Your task to perform on an android device: move a message to another label in the gmail app Image 0: 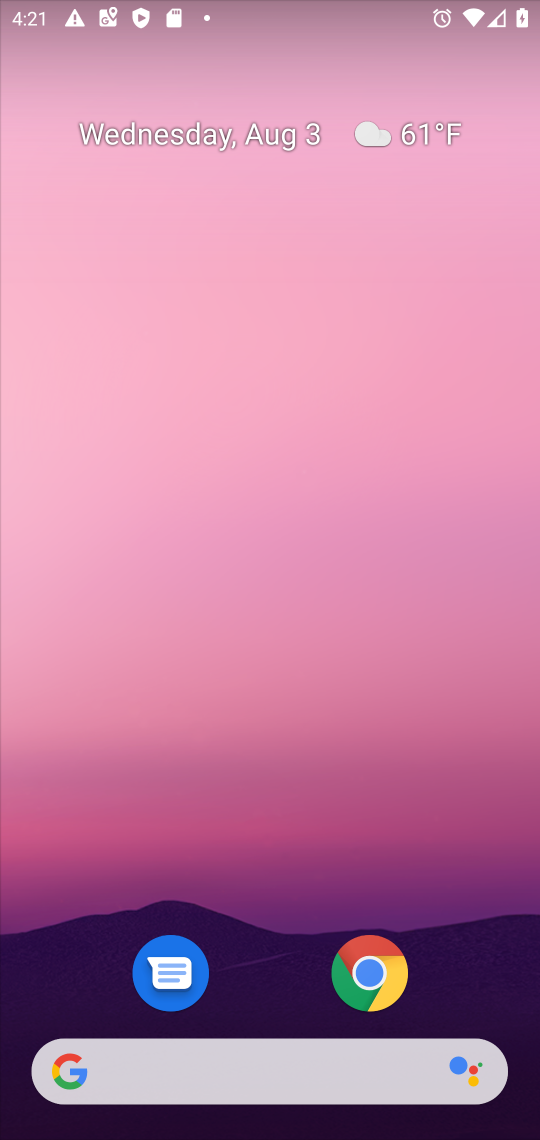
Step 0: drag from (352, 773) to (281, 61)
Your task to perform on an android device: move a message to another label in the gmail app Image 1: 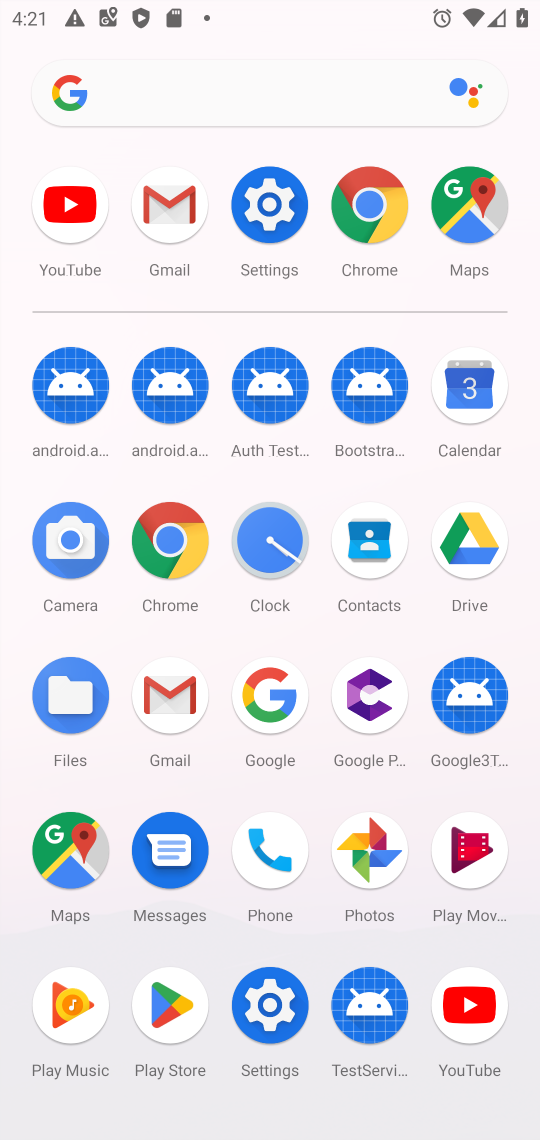
Step 1: click (177, 209)
Your task to perform on an android device: move a message to another label in the gmail app Image 2: 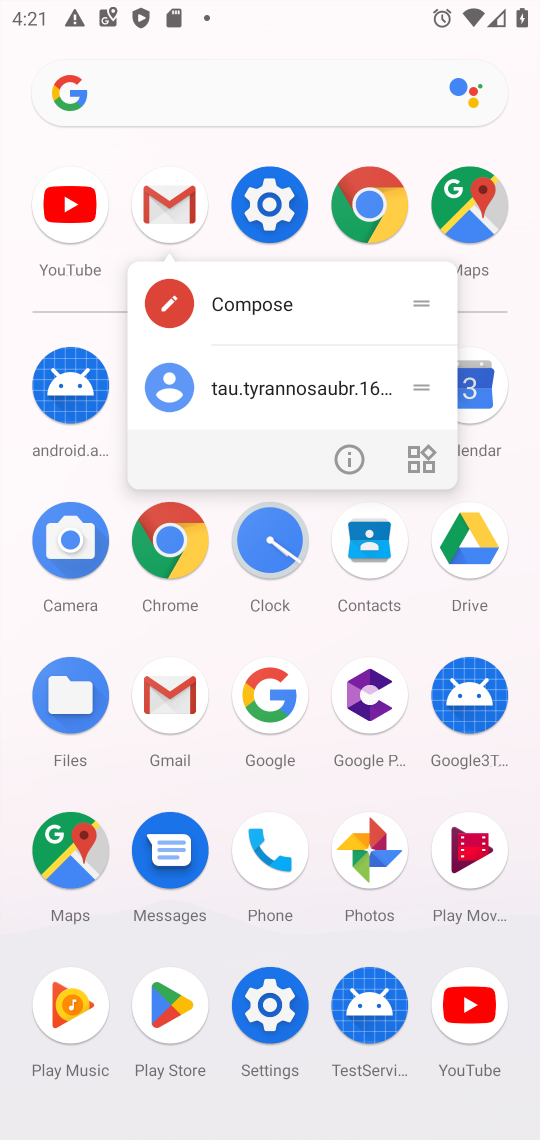
Step 2: click (177, 211)
Your task to perform on an android device: move a message to another label in the gmail app Image 3: 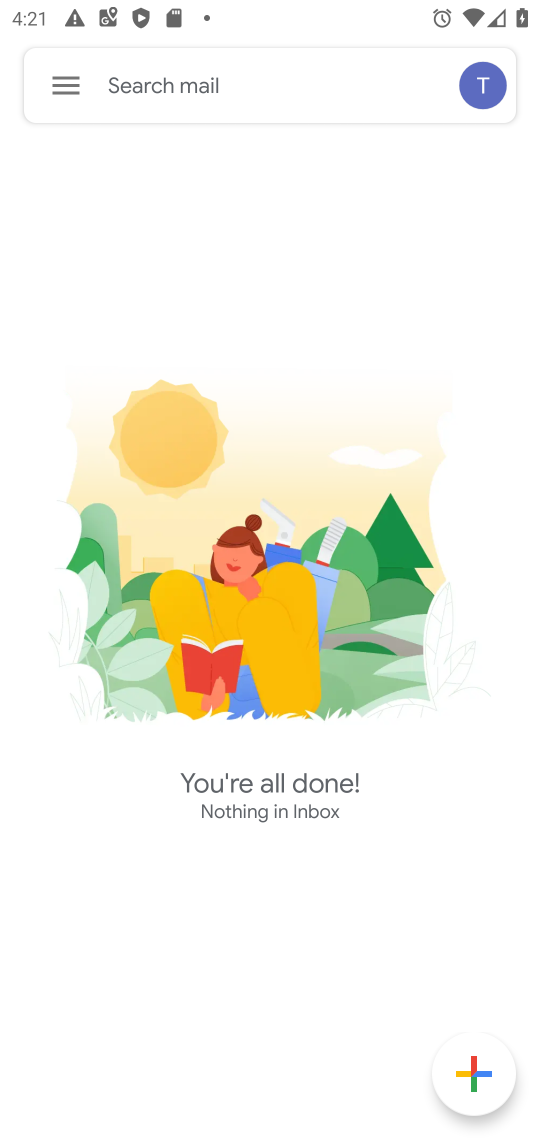
Step 3: click (58, 87)
Your task to perform on an android device: move a message to another label in the gmail app Image 4: 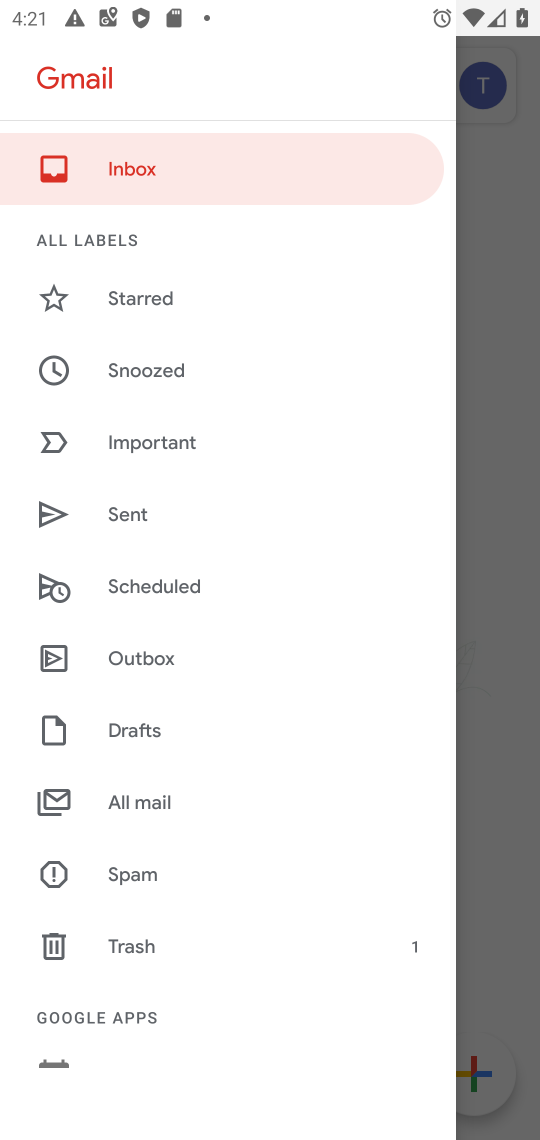
Step 4: click (178, 801)
Your task to perform on an android device: move a message to another label in the gmail app Image 5: 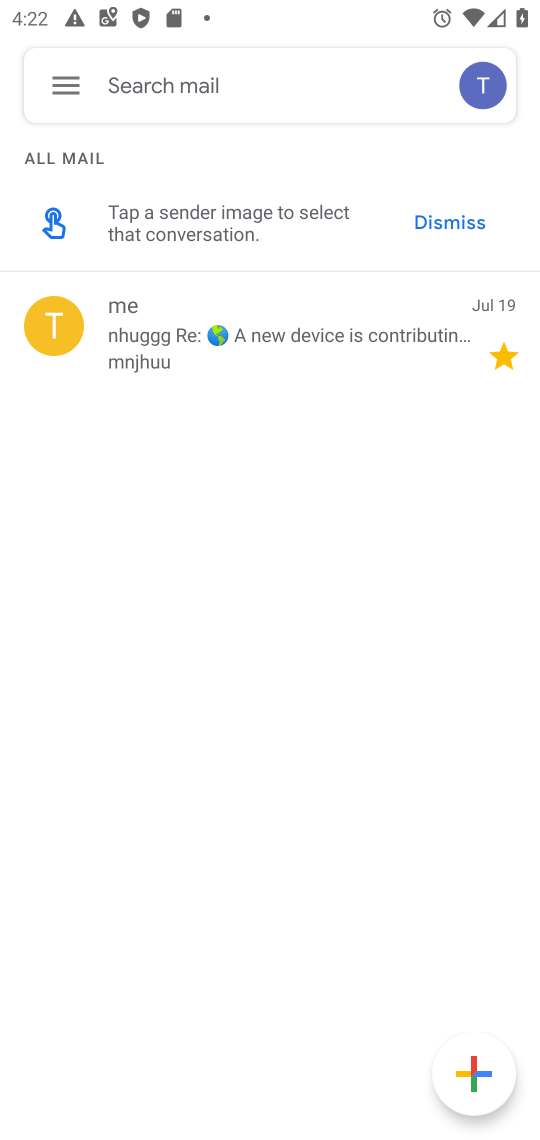
Step 5: click (274, 339)
Your task to perform on an android device: move a message to another label in the gmail app Image 6: 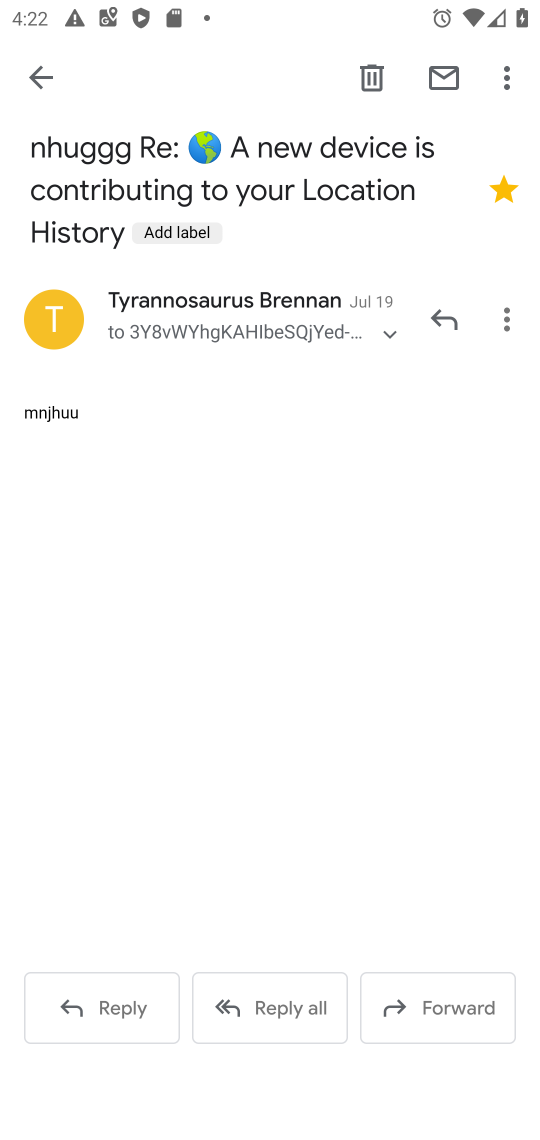
Step 6: click (505, 78)
Your task to perform on an android device: move a message to another label in the gmail app Image 7: 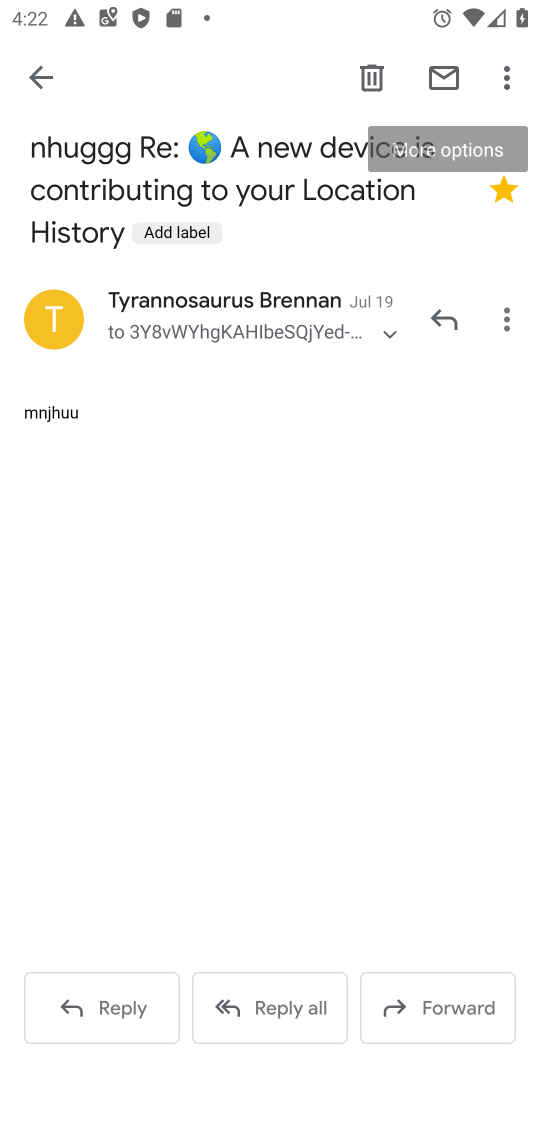
Step 7: click (505, 80)
Your task to perform on an android device: move a message to another label in the gmail app Image 8: 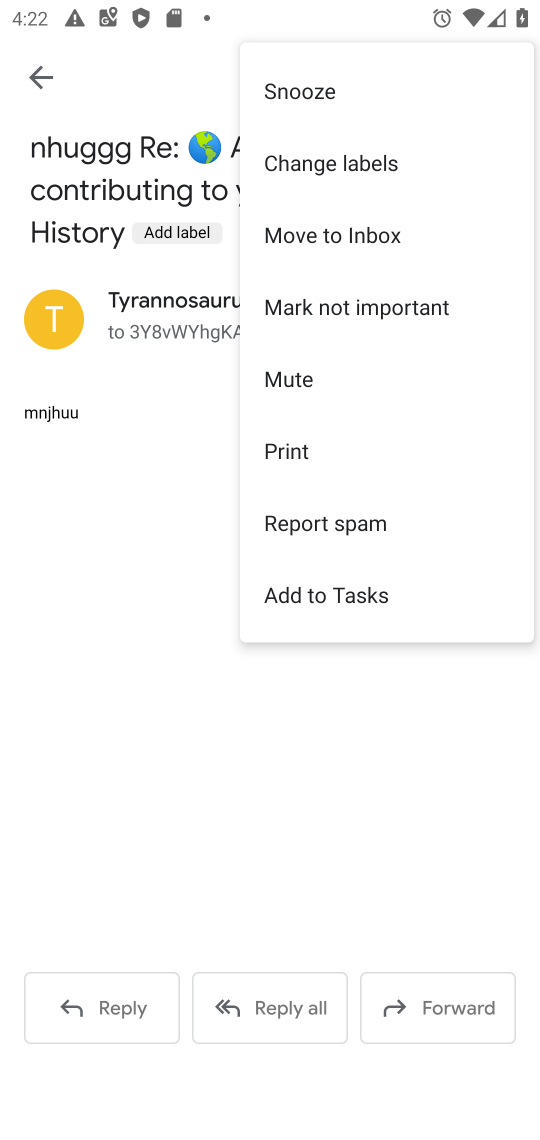
Step 8: click (391, 231)
Your task to perform on an android device: move a message to another label in the gmail app Image 9: 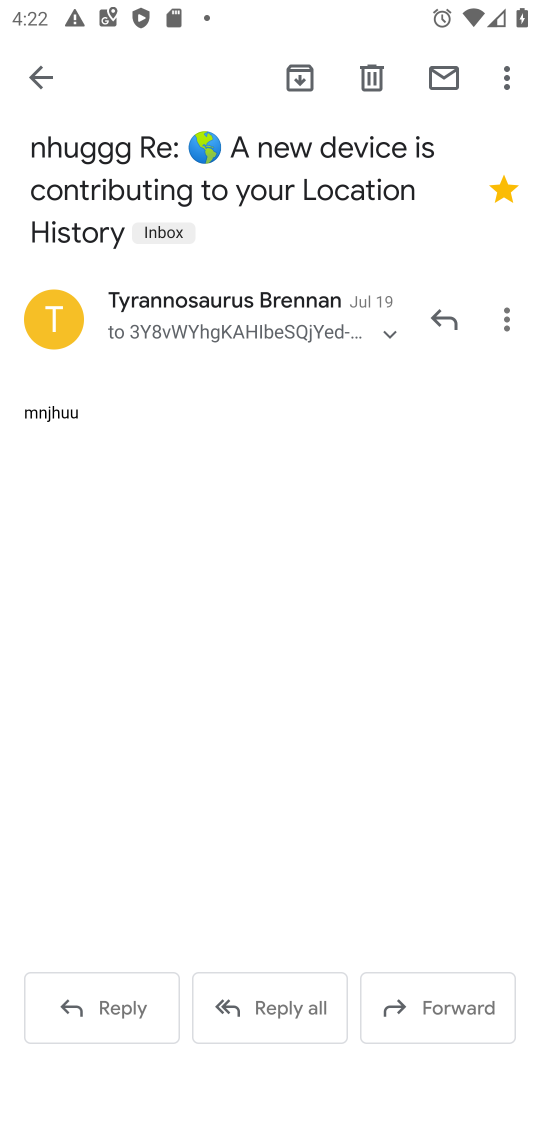
Step 9: task complete